Your task to perform on an android device: Open Google Chrome and open the bookmarks view Image 0: 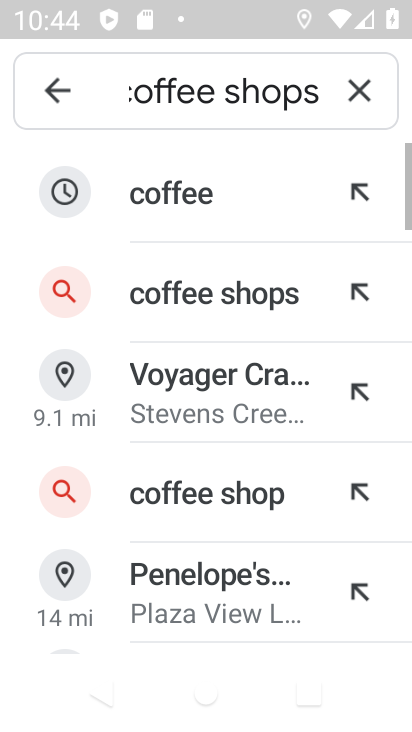
Step 0: press home button
Your task to perform on an android device: Open Google Chrome and open the bookmarks view Image 1: 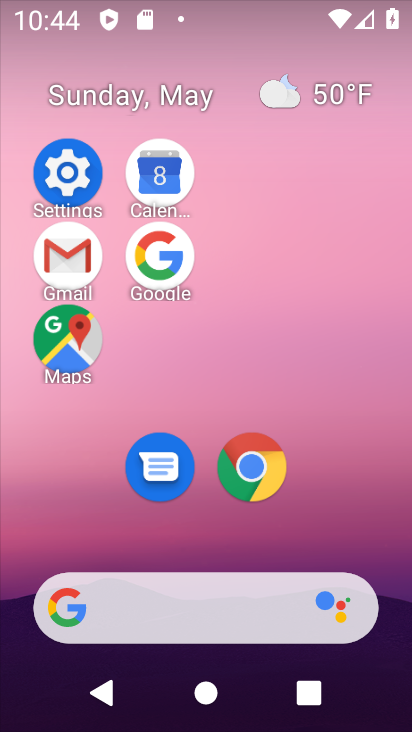
Step 1: click (245, 460)
Your task to perform on an android device: Open Google Chrome and open the bookmarks view Image 2: 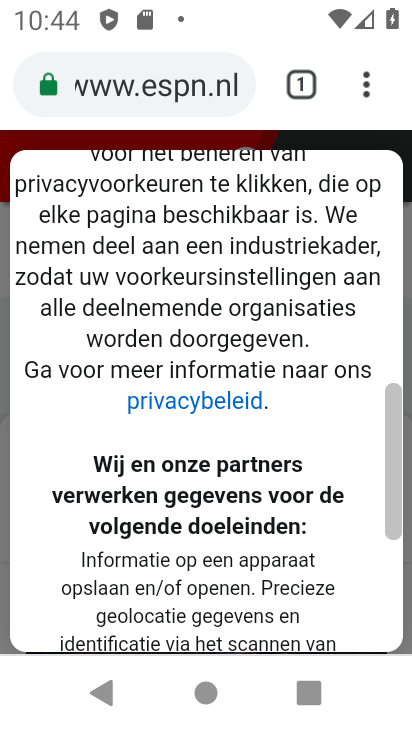
Step 2: click (365, 72)
Your task to perform on an android device: Open Google Chrome and open the bookmarks view Image 3: 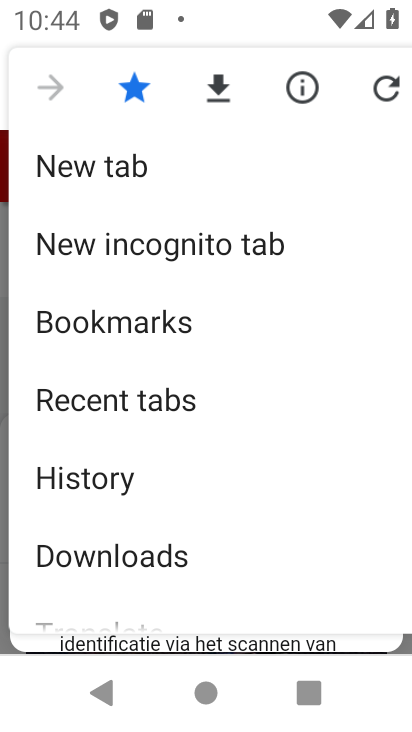
Step 3: click (183, 328)
Your task to perform on an android device: Open Google Chrome and open the bookmarks view Image 4: 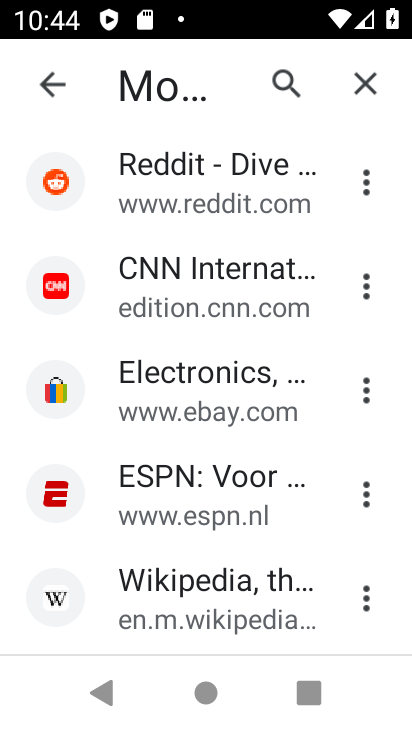
Step 4: task complete